Your task to perform on an android device: turn notification dots off Image 0: 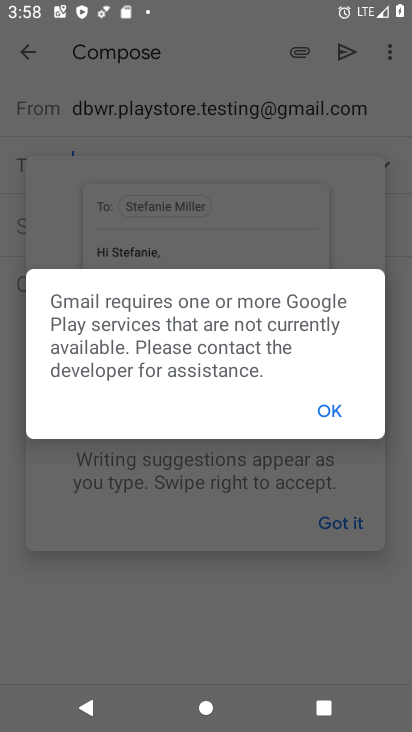
Step 0: press home button
Your task to perform on an android device: turn notification dots off Image 1: 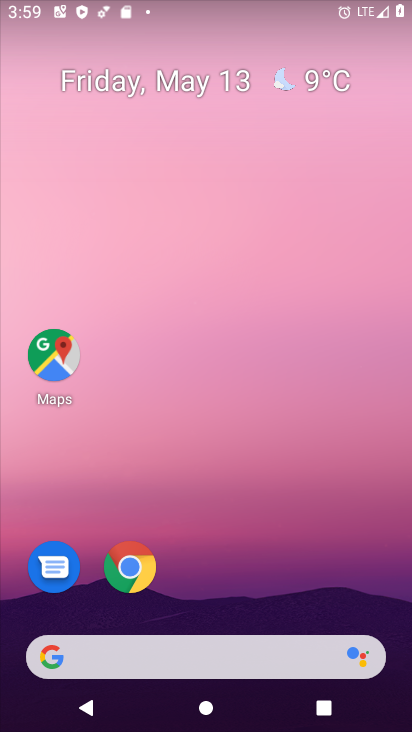
Step 1: drag from (255, 596) to (266, 18)
Your task to perform on an android device: turn notification dots off Image 2: 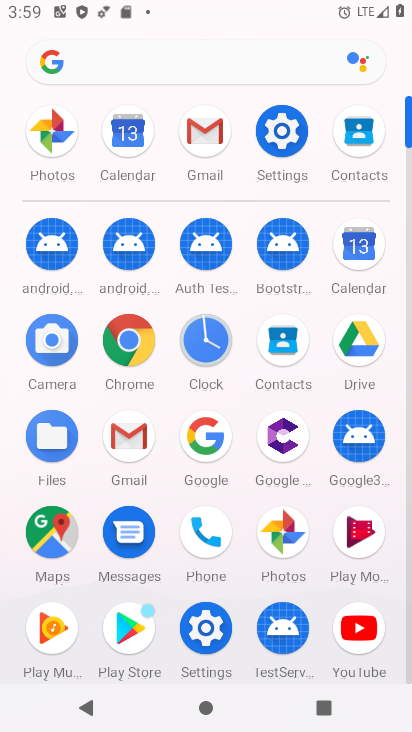
Step 2: click (279, 129)
Your task to perform on an android device: turn notification dots off Image 3: 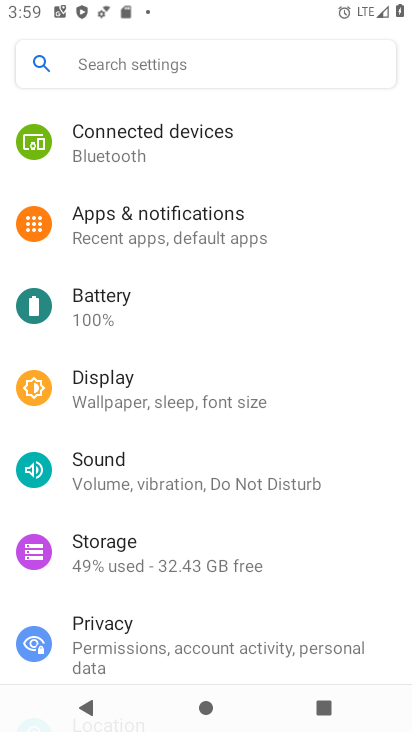
Step 3: click (155, 238)
Your task to perform on an android device: turn notification dots off Image 4: 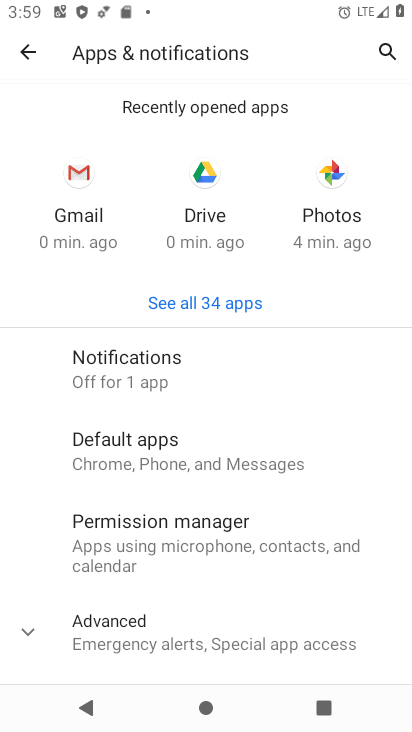
Step 4: click (120, 377)
Your task to perform on an android device: turn notification dots off Image 5: 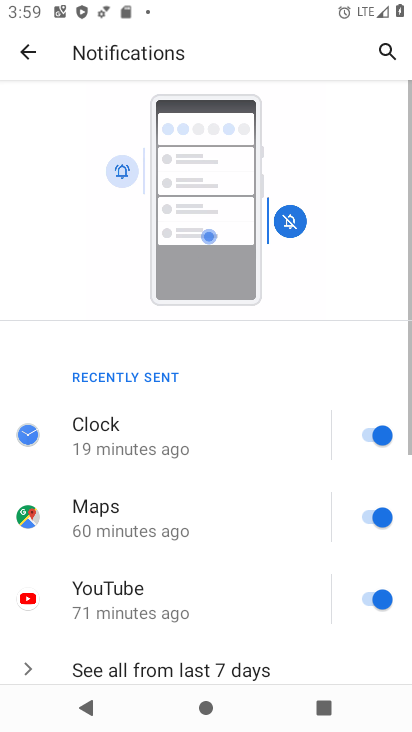
Step 5: drag from (214, 511) to (218, 68)
Your task to perform on an android device: turn notification dots off Image 6: 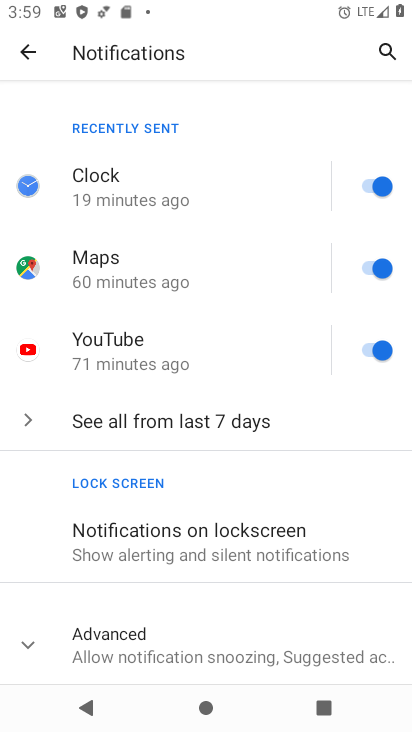
Step 6: click (26, 653)
Your task to perform on an android device: turn notification dots off Image 7: 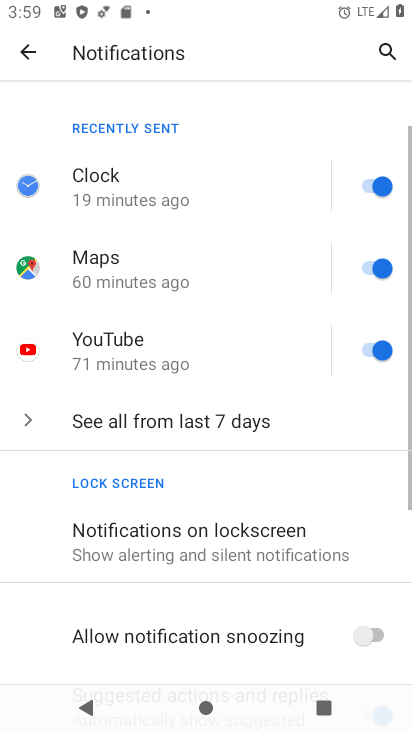
Step 7: drag from (207, 625) to (211, 78)
Your task to perform on an android device: turn notification dots off Image 8: 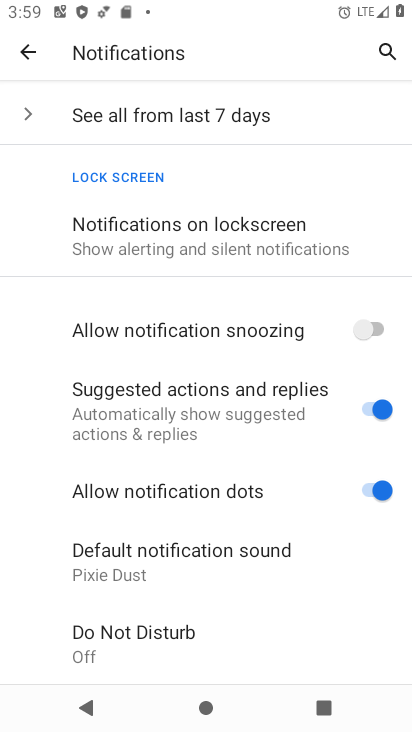
Step 8: click (382, 490)
Your task to perform on an android device: turn notification dots off Image 9: 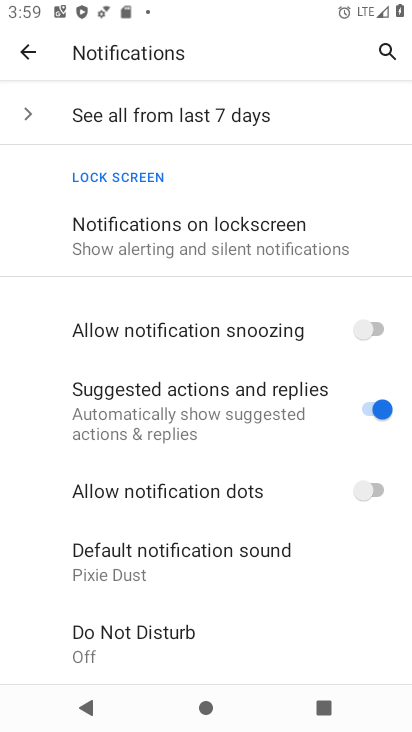
Step 9: task complete